Your task to perform on an android device: set the timer Image 0: 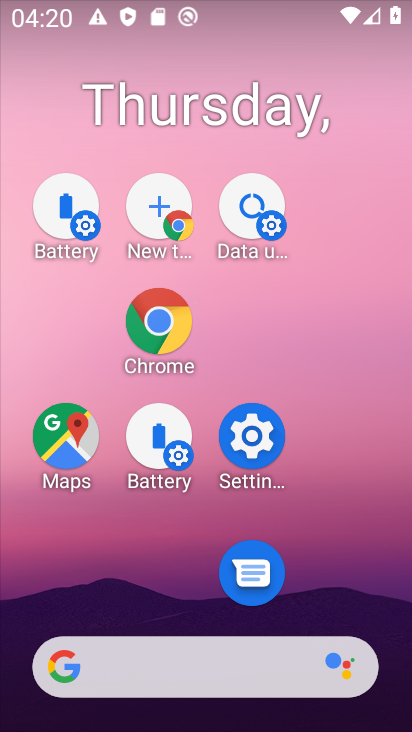
Step 0: drag from (326, 648) to (220, 192)
Your task to perform on an android device: set the timer Image 1: 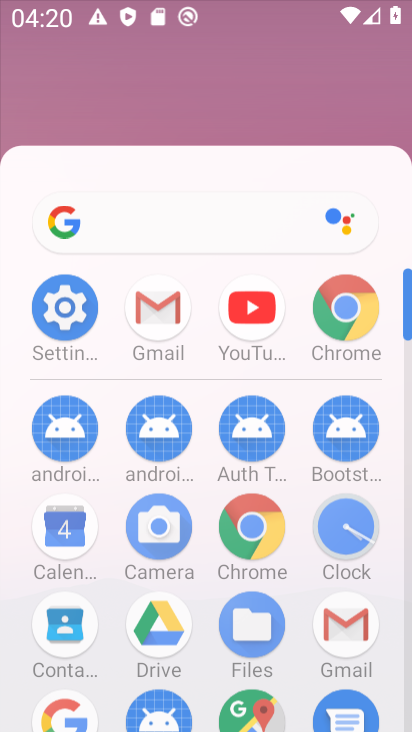
Step 1: drag from (331, 418) to (280, 220)
Your task to perform on an android device: set the timer Image 2: 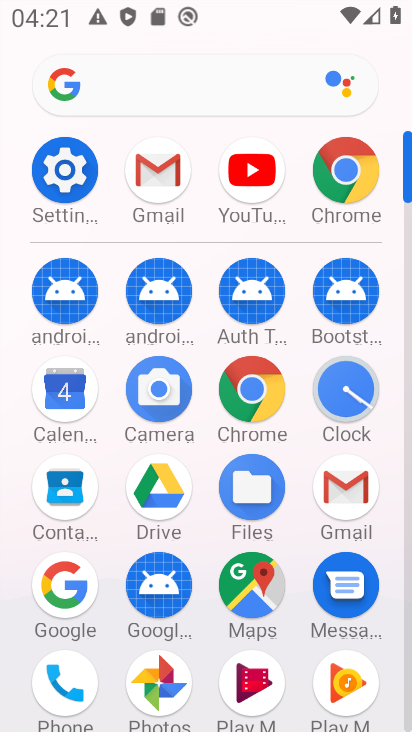
Step 2: click (360, 390)
Your task to perform on an android device: set the timer Image 3: 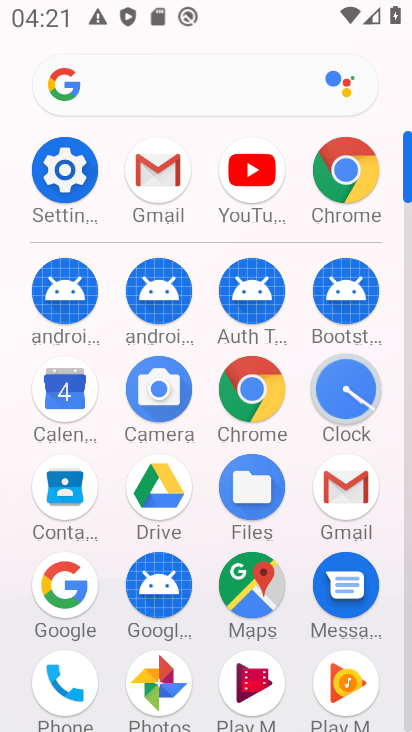
Step 3: click (351, 396)
Your task to perform on an android device: set the timer Image 4: 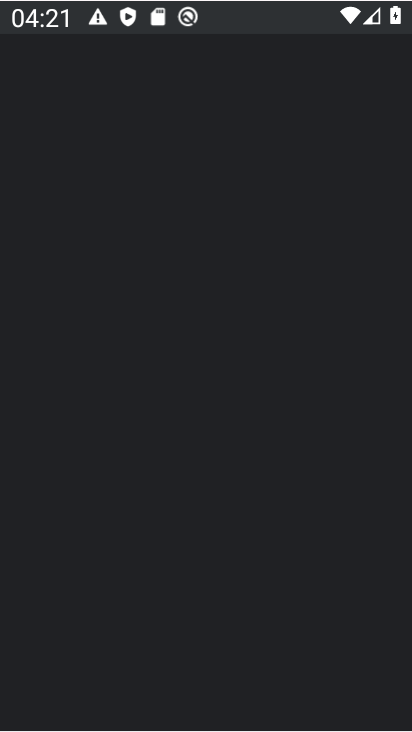
Step 4: click (353, 397)
Your task to perform on an android device: set the timer Image 5: 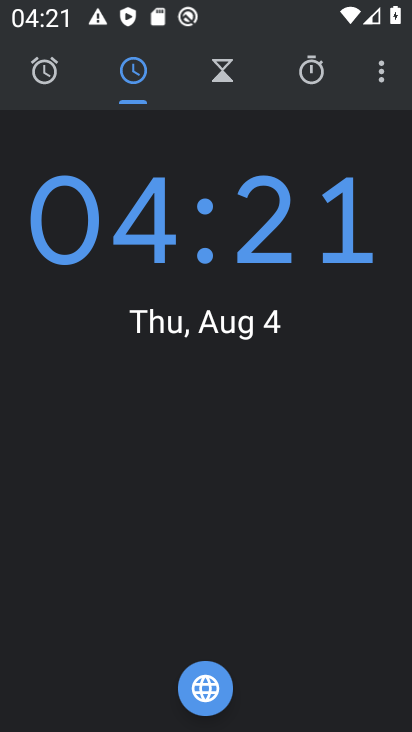
Step 5: click (216, 84)
Your task to perform on an android device: set the timer Image 6: 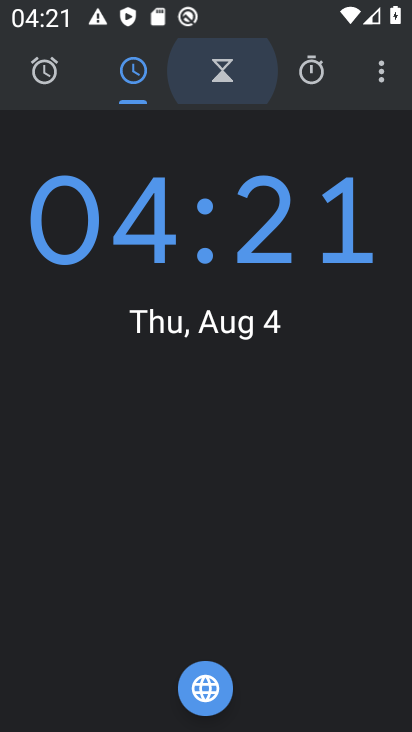
Step 6: click (216, 92)
Your task to perform on an android device: set the timer Image 7: 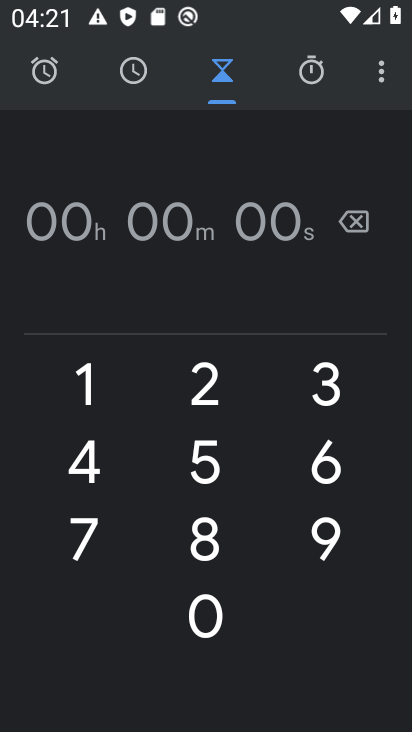
Step 7: click (199, 516)
Your task to perform on an android device: set the timer Image 8: 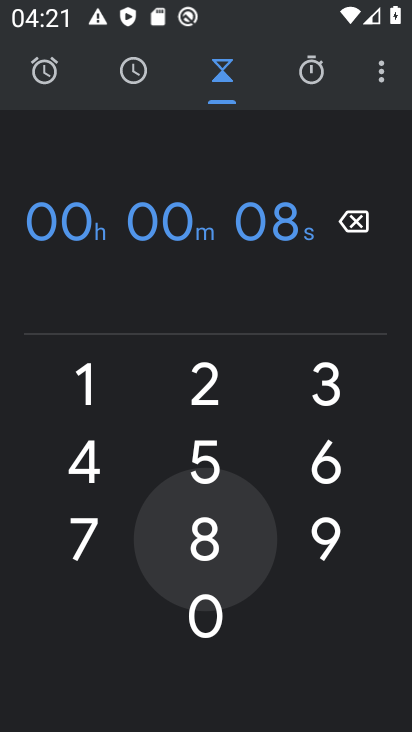
Step 8: click (210, 536)
Your task to perform on an android device: set the timer Image 9: 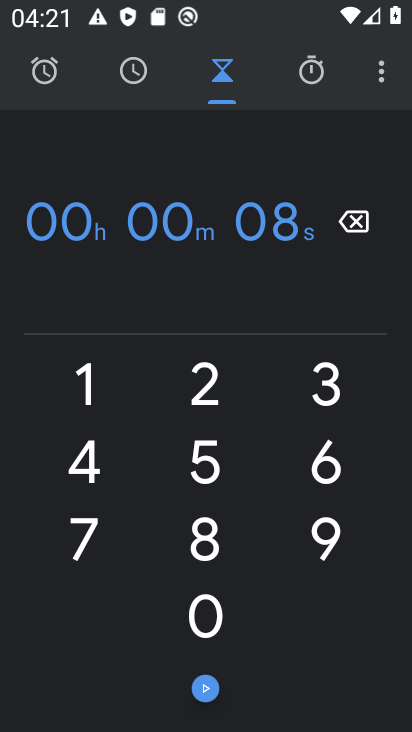
Step 9: click (210, 536)
Your task to perform on an android device: set the timer Image 10: 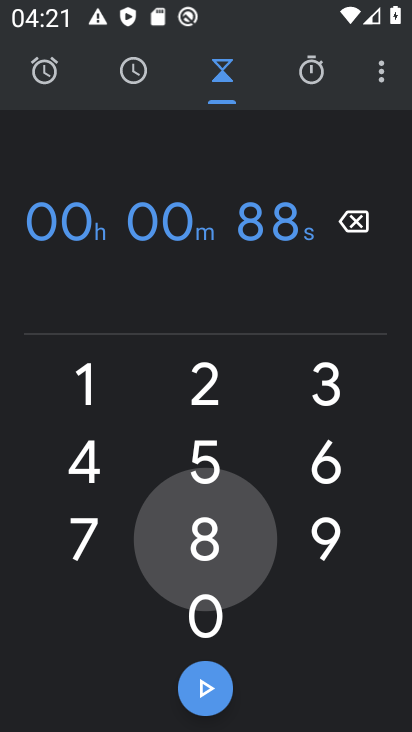
Step 10: click (210, 536)
Your task to perform on an android device: set the timer Image 11: 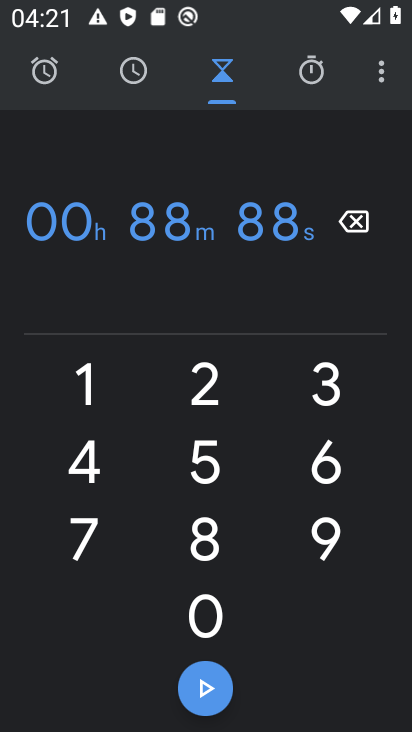
Step 11: click (205, 513)
Your task to perform on an android device: set the timer Image 12: 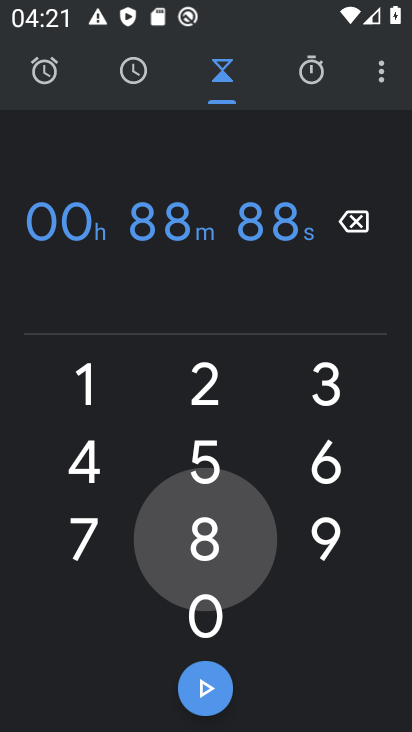
Step 12: click (205, 543)
Your task to perform on an android device: set the timer Image 13: 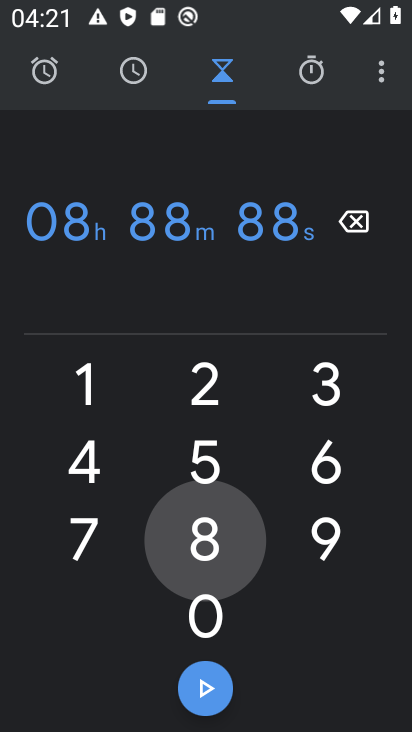
Step 13: click (205, 545)
Your task to perform on an android device: set the timer Image 14: 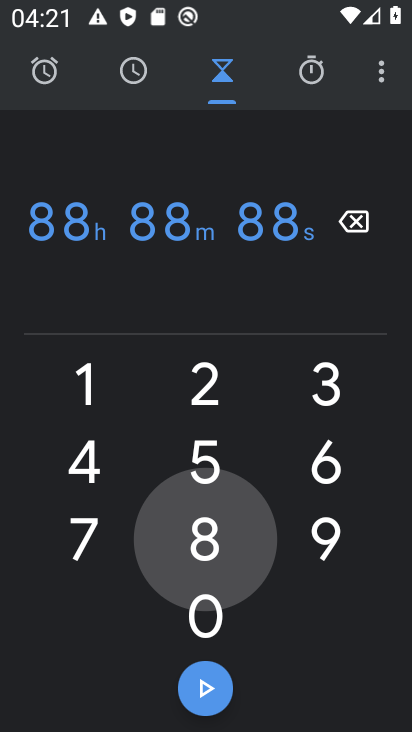
Step 14: click (207, 553)
Your task to perform on an android device: set the timer Image 15: 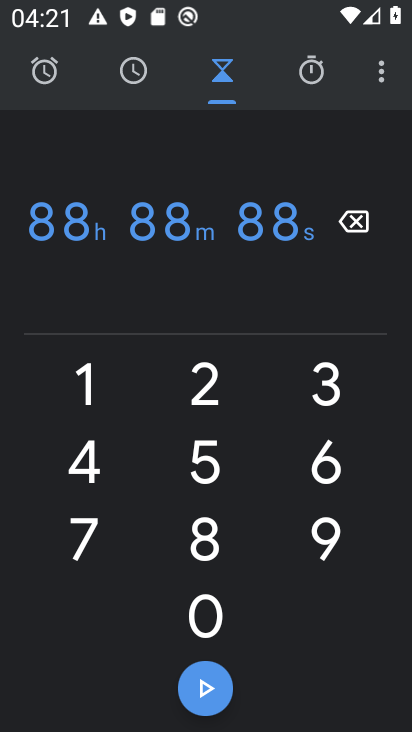
Step 15: click (128, 548)
Your task to perform on an android device: set the timer Image 16: 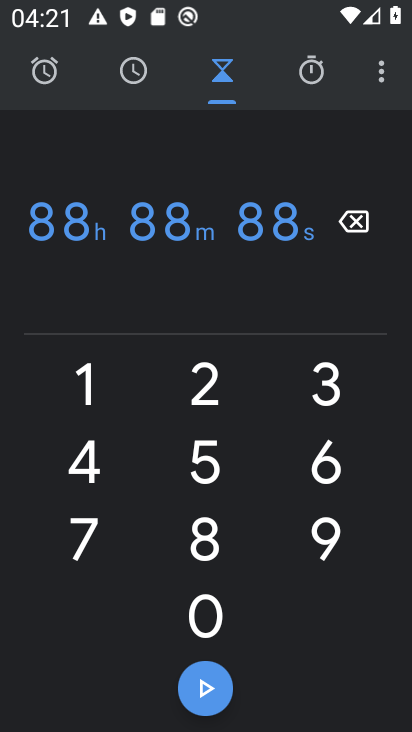
Step 16: click (200, 463)
Your task to perform on an android device: set the timer Image 17: 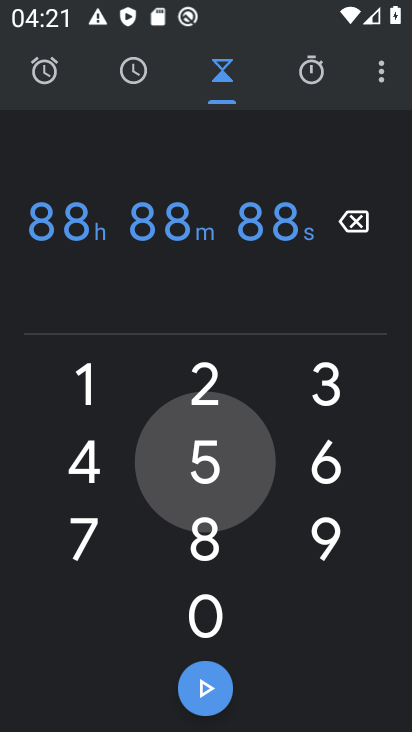
Step 17: click (200, 463)
Your task to perform on an android device: set the timer Image 18: 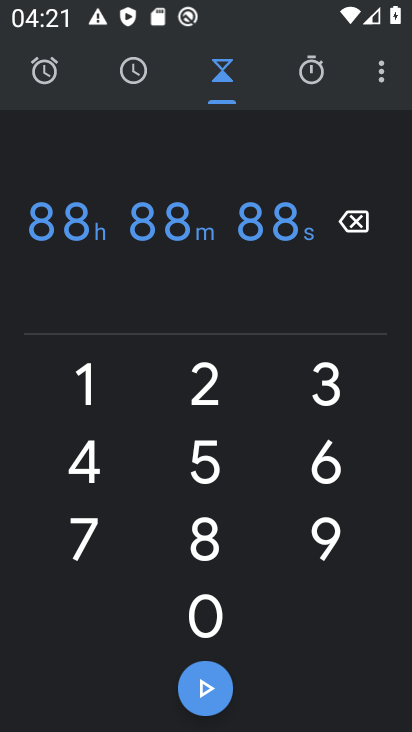
Step 18: click (206, 453)
Your task to perform on an android device: set the timer Image 19: 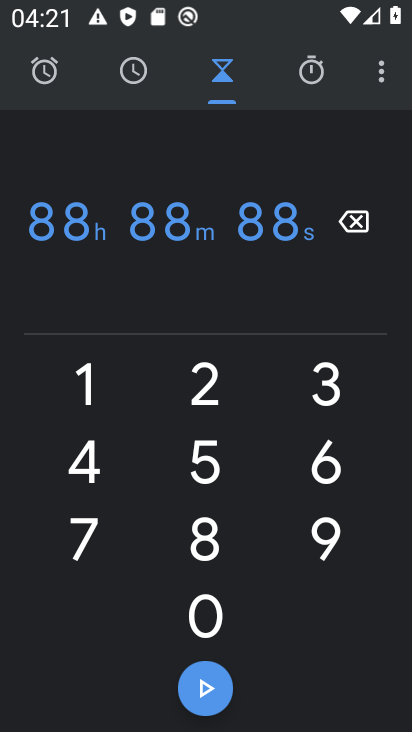
Step 19: click (205, 470)
Your task to perform on an android device: set the timer Image 20: 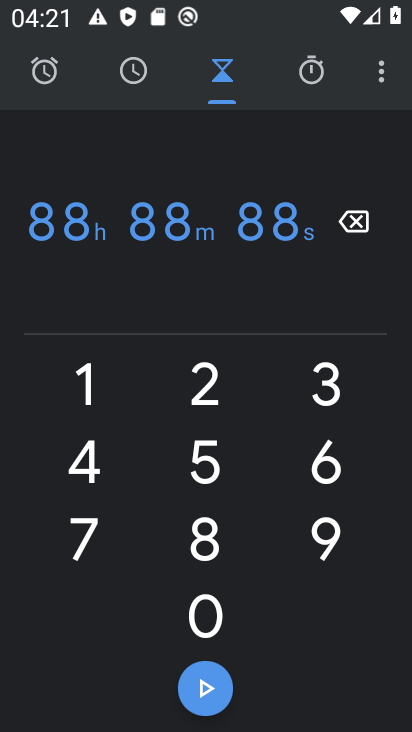
Step 20: drag from (206, 472) to (212, 619)
Your task to perform on an android device: set the timer Image 21: 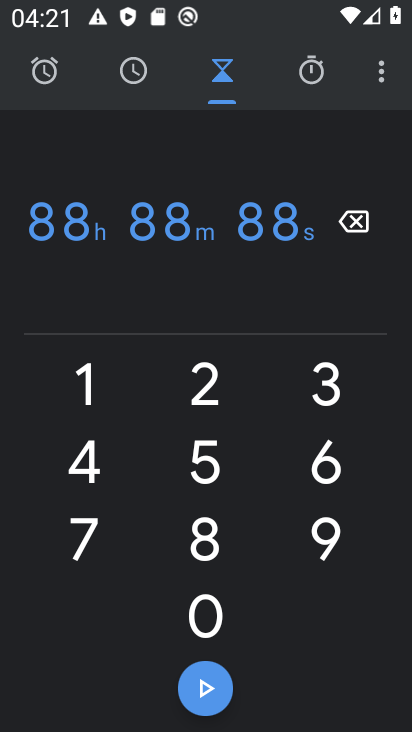
Step 21: click (201, 697)
Your task to perform on an android device: set the timer Image 22: 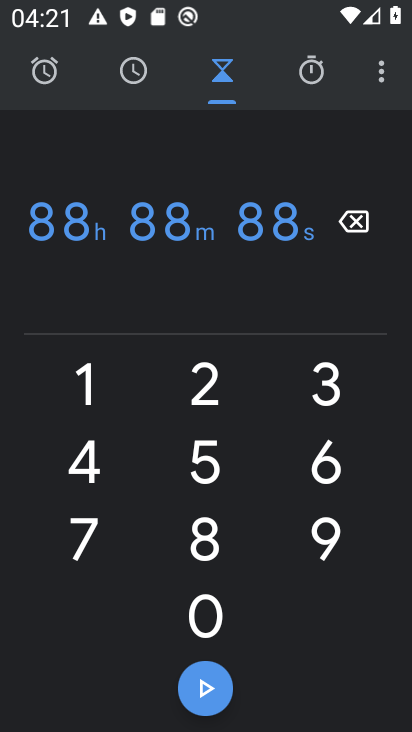
Step 22: click (201, 697)
Your task to perform on an android device: set the timer Image 23: 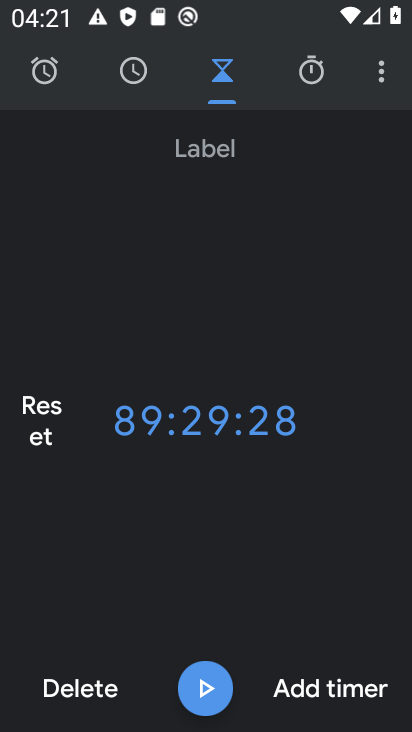
Step 23: click (204, 695)
Your task to perform on an android device: set the timer Image 24: 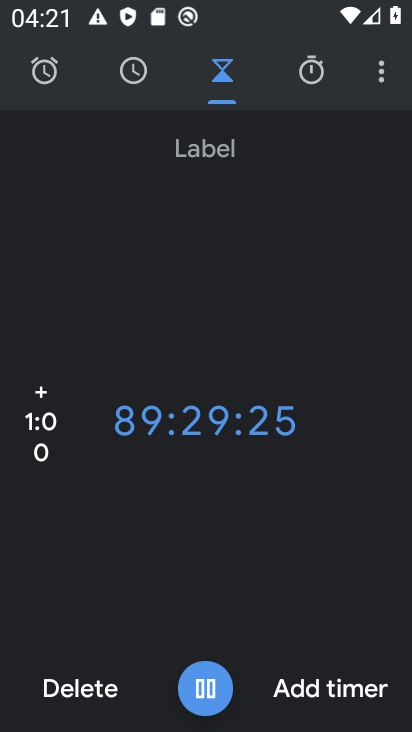
Step 24: click (198, 684)
Your task to perform on an android device: set the timer Image 25: 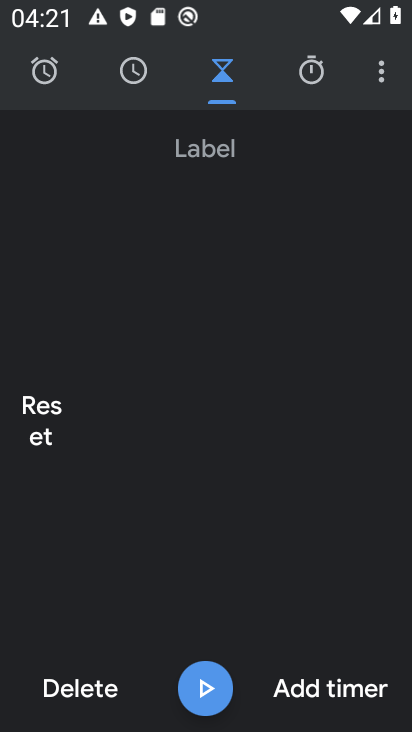
Step 25: task complete